Your task to perform on an android device: set default search engine in the chrome app Image 0: 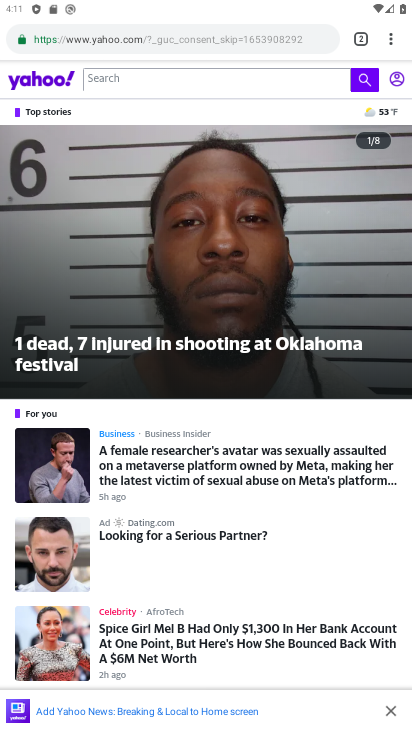
Step 0: task complete